Your task to perform on an android device: empty trash in google photos Image 0: 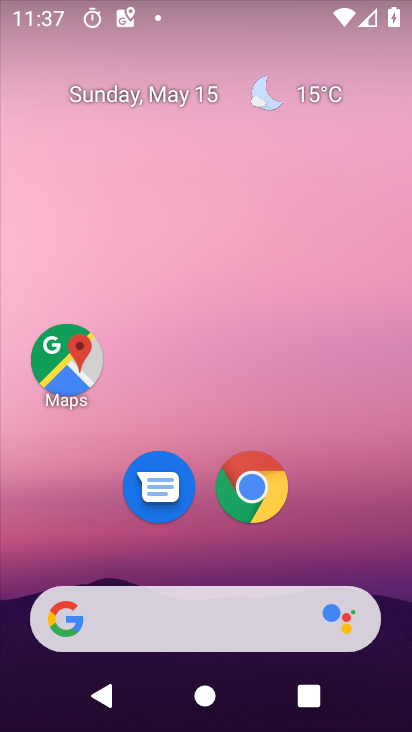
Step 0: drag from (393, 614) to (405, 245)
Your task to perform on an android device: empty trash in google photos Image 1: 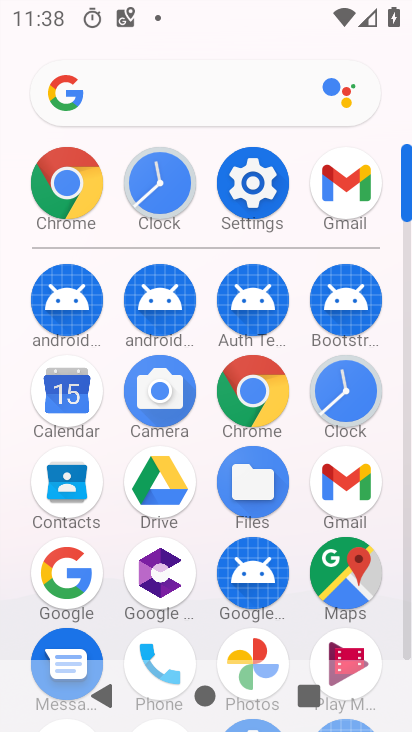
Step 1: click (249, 627)
Your task to perform on an android device: empty trash in google photos Image 2: 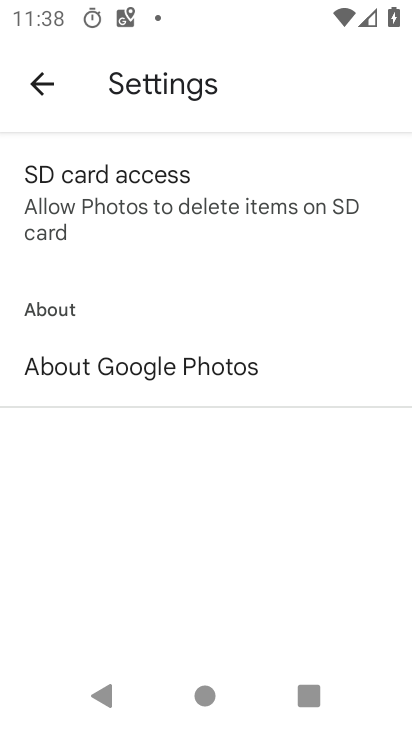
Step 2: click (41, 75)
Your task to perform on an android device: empty trash in google photos Image 3: 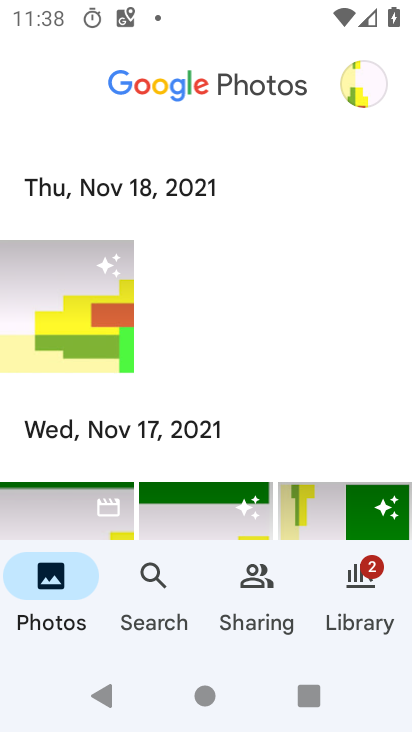
Step 3: task complete